Your task to perform on an android device: turn off improve location accuracy Image 0: 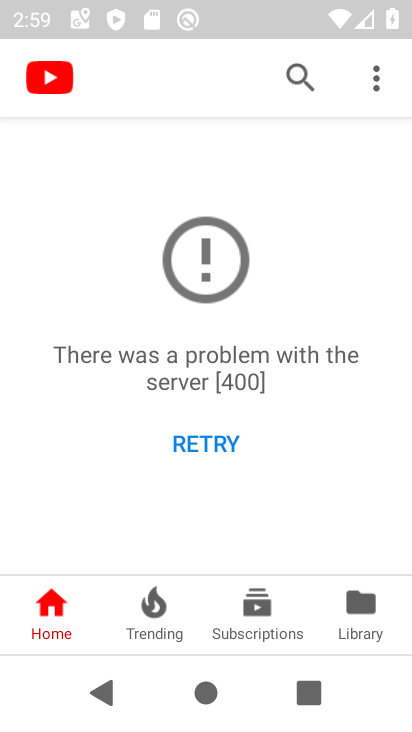
Step 0: press back button
Your task to perform on an android device: turn off improve location accuracy Image 1: 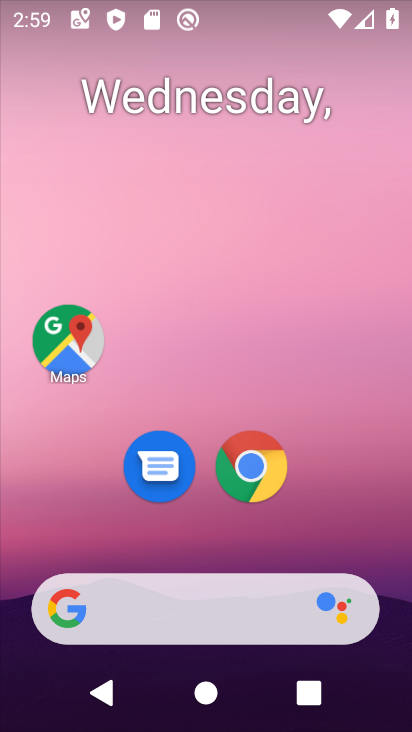
Step 1: drag from (194, 544) to (264, 0)
Your task to perform on an android device: turn off improve location accuracy Image 2: 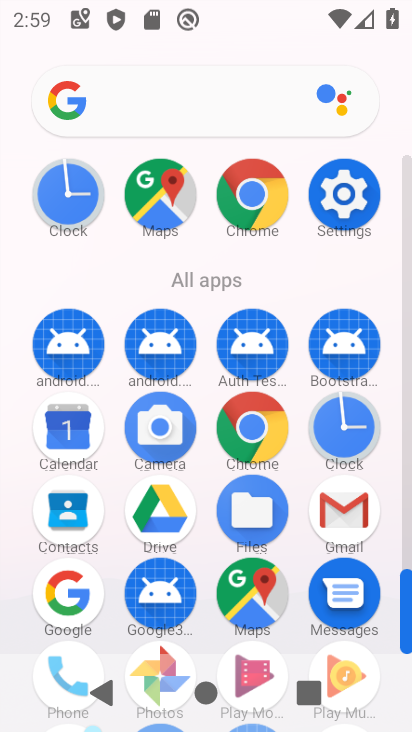
Step 2: click (331, 203)
Your task to perform on an android device: turn off improve location accuracy Image 3: 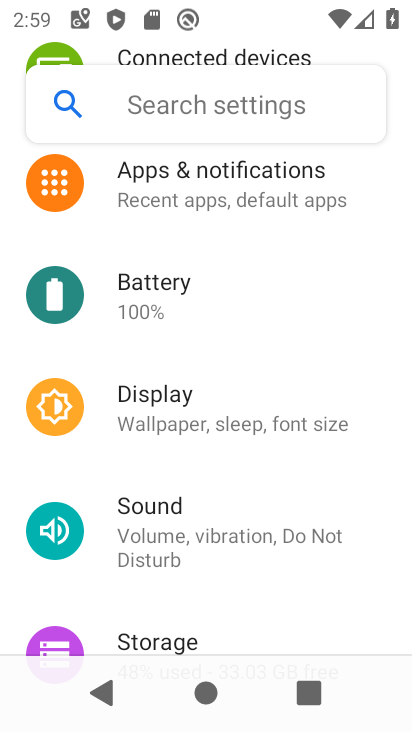
Step 3: drag from (162, 524) to (103, 106)
Your task to perform on an android device: turn off improve location accuracy Image 4: 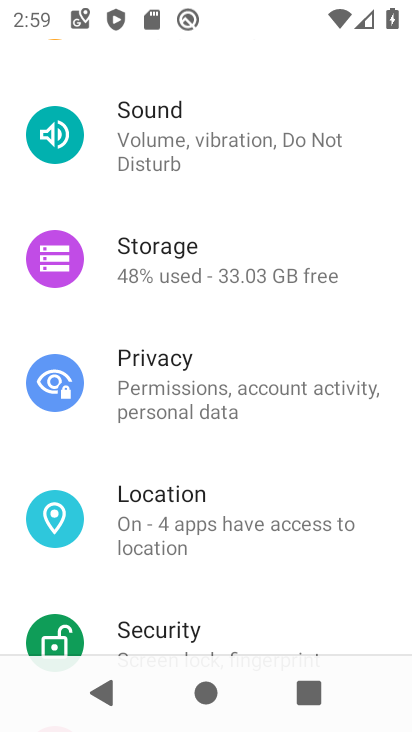
Step 4: click (174, 498)
Your task to perform on an android device: turn off improve location accuracy Image 5: 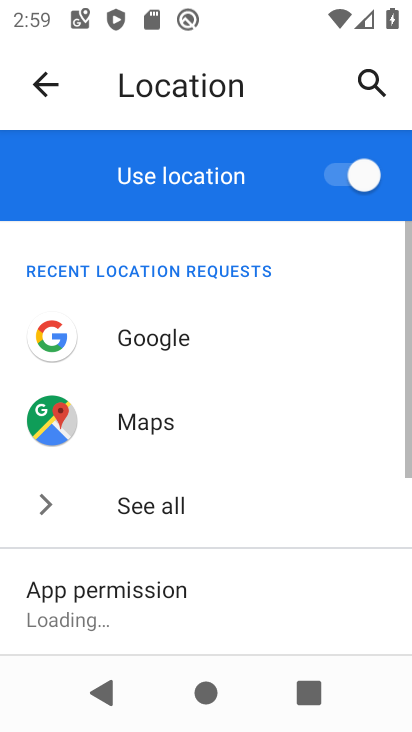
Step 5: drag from (174, 498) to (125, 66)
Your task to perform on an android device: turn off improve location accuracy Image 6: 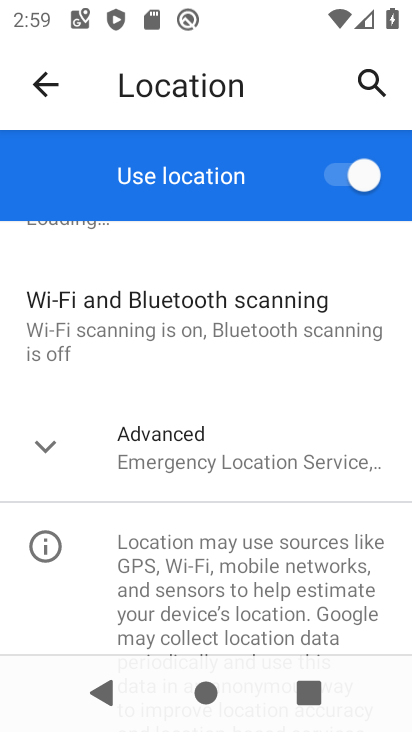
Step 6: click (145, 436)
Your task to perform on an android device: turn off improve location accuracy Image 7: 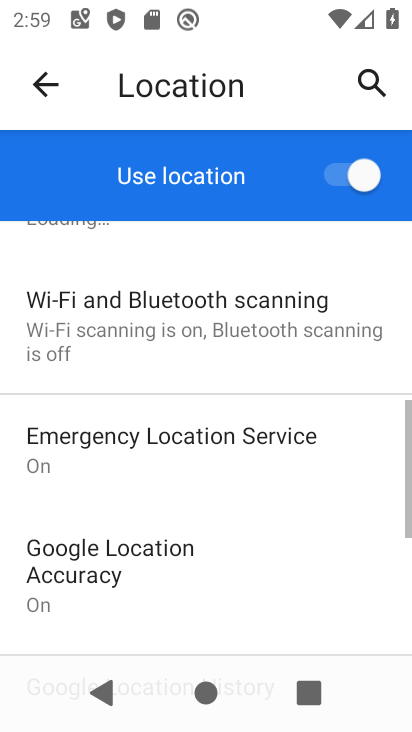
Step 7: drag from (145, 436) to (113, 229)
Your task to perform on an android device: turn off improve location accuracy Image 8: 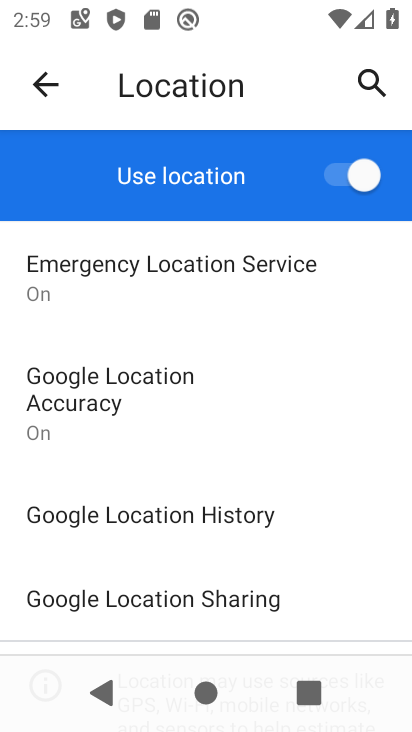
Step 8: click (154, 390)
Your task to perform on an android device: turn off improve location accuracy Image 9: 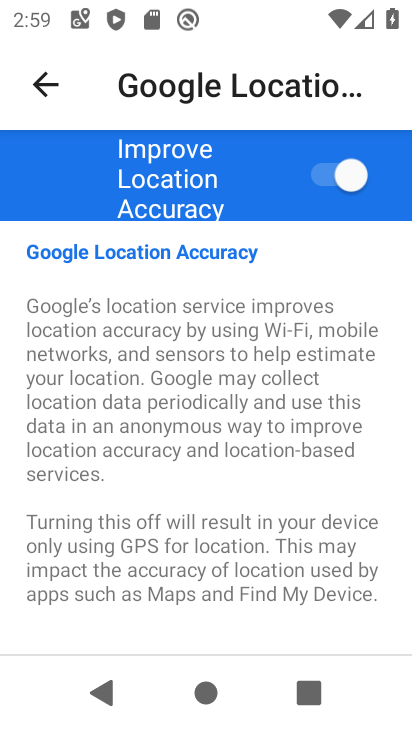
Step 9: click (328, 175)
Your task to perform on an android device: turn off improve location accuracy Image 10: 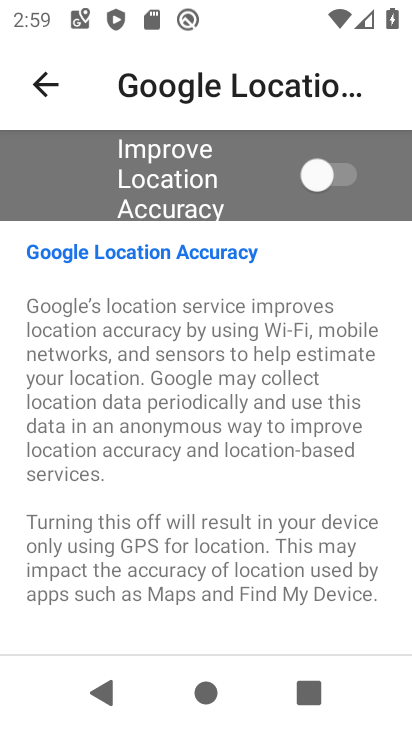
Step 10: task complete